Your task to perform on an android device: Search for Italian restaurants on Maps Image 0: 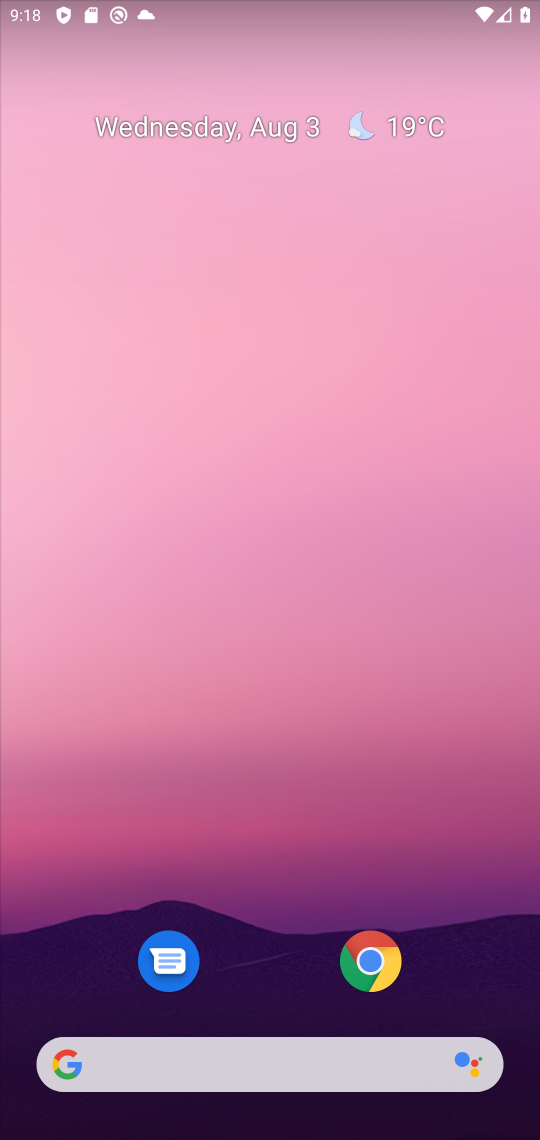
Step 0: drag from (258, 982) to (259, 34)
Your task to perform on an android device: Search for Italian restaurants on Maps Image 1: 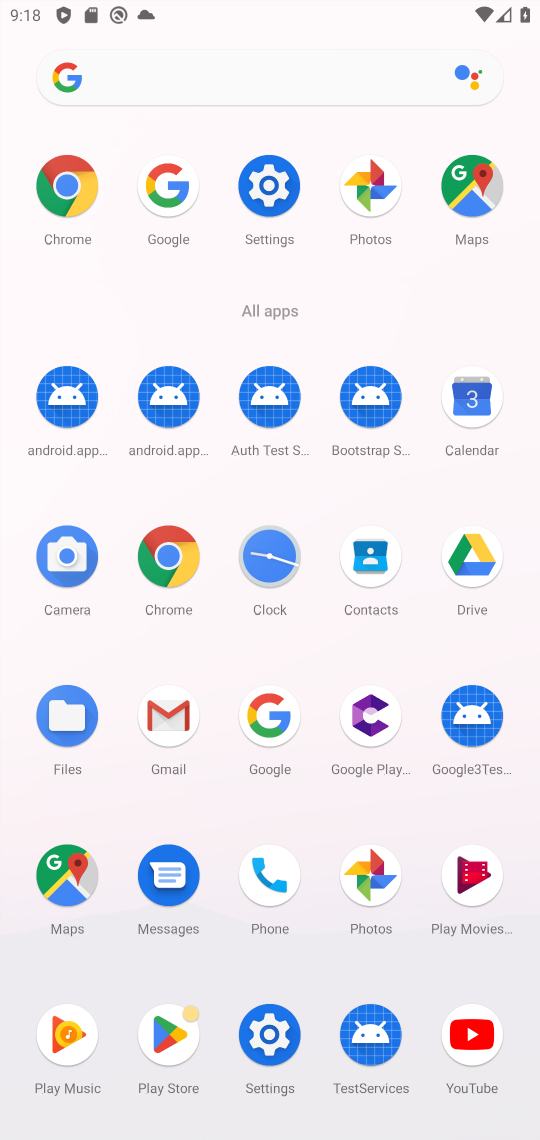
Step 1: click (70, 870)
Your task to perform on an android device: Search for Italian restaurants on Maps Image 2: 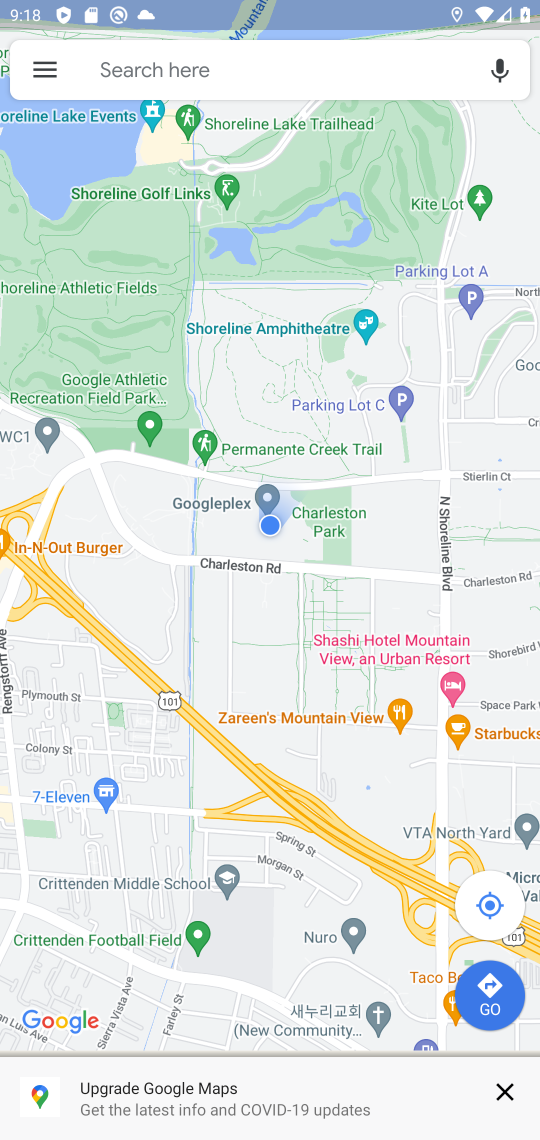
Step 2: click (190, 78)
Your task to perform on an android device: Search for Italian restaurants on Maps Image 3: 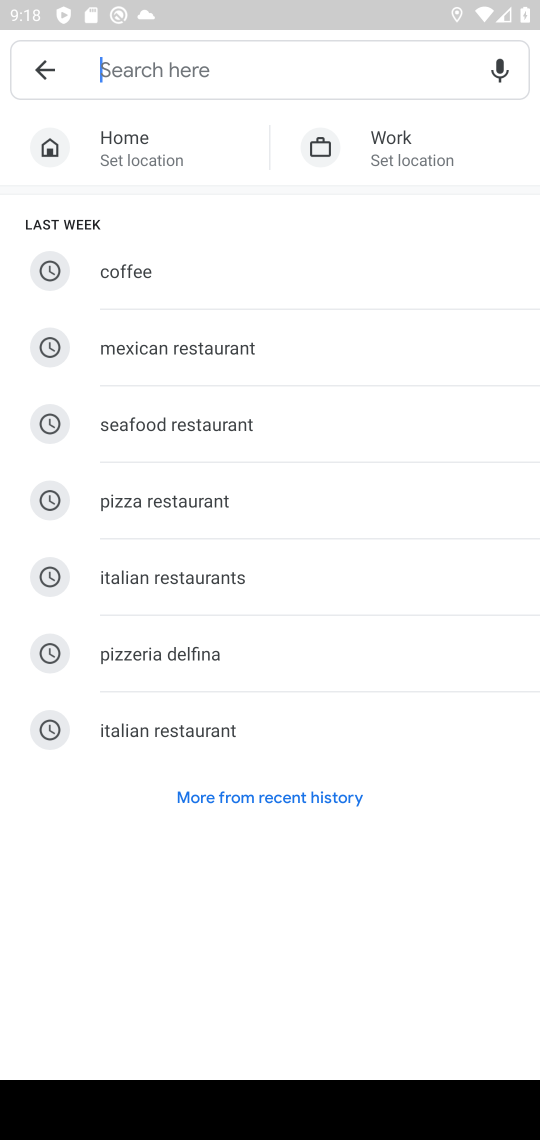
Step 3: click (168, 742)
Your task to perform on an android device: Search for Italian restaurants on Maps Image 4: 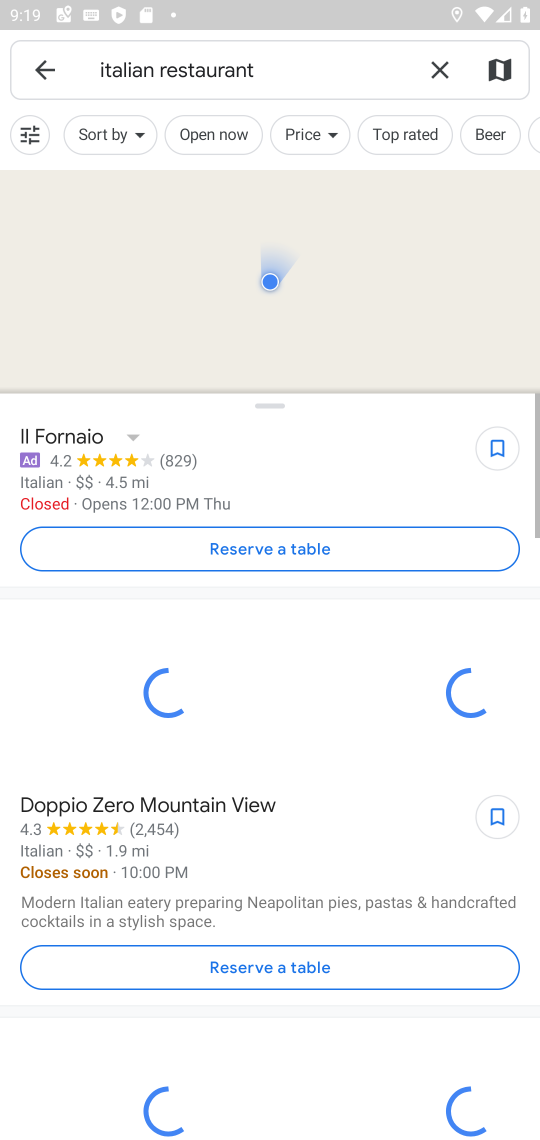
Step 4: task complete